Your task to perform on an android device: show emergency info Image 0: 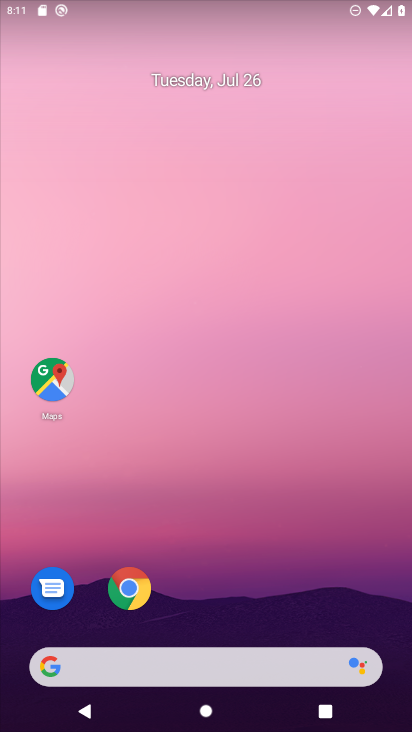
Step 0: drag from (144, 639) to (206, 386)
Your task to perform on an android device: show emergency info Image 1: 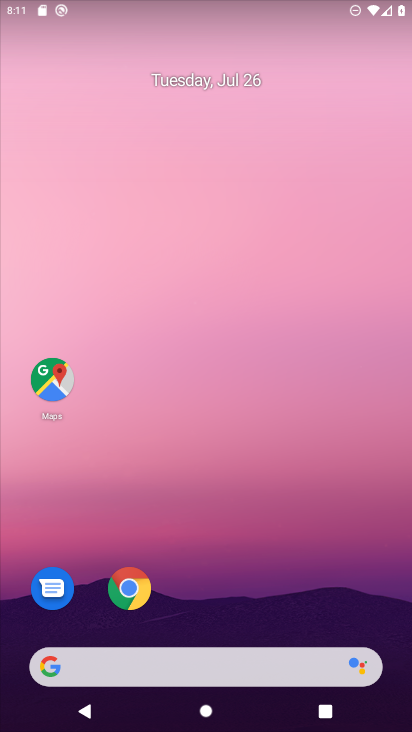
Step 1: drag from (215, 590) to (317, 65)
Your task to perform on an android device: show emergency info Image 2: 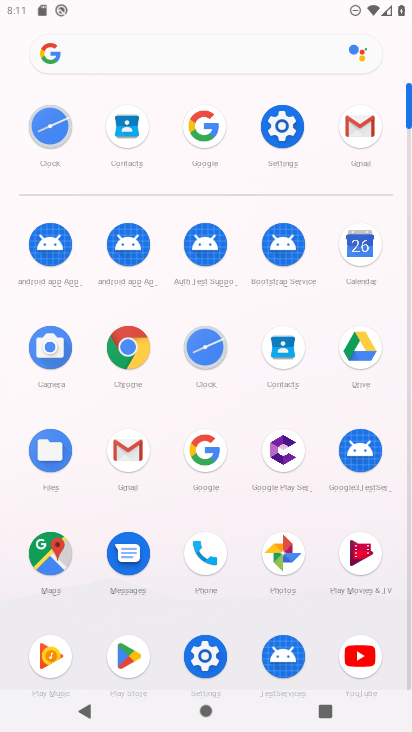
Step 2: click (190, 648)
Your task to perform on an android device: show emergency info Image 3: 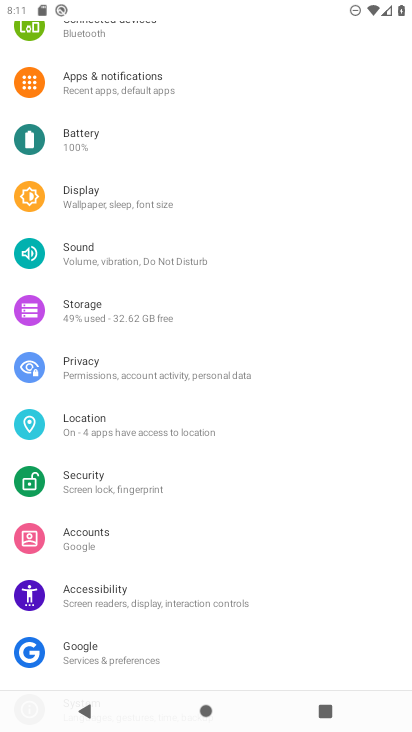
Step 3: drag from (208, 693) to (234, 571)
Your task to perform on an android device: show emergency info Image 4: 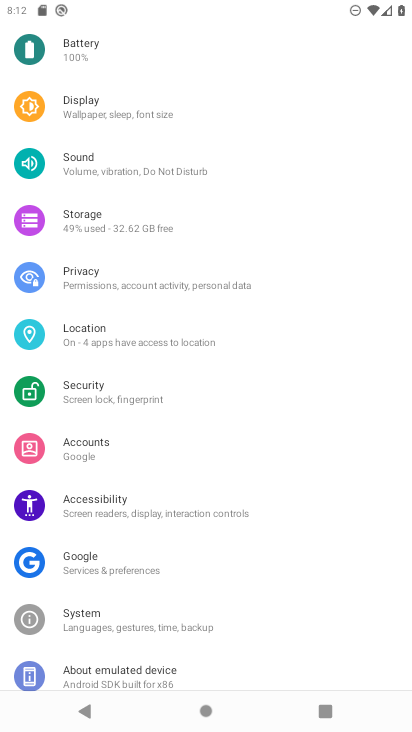
Step 4: click (115, 674)
Your task to perform on an android device: show emergency info Image 5: 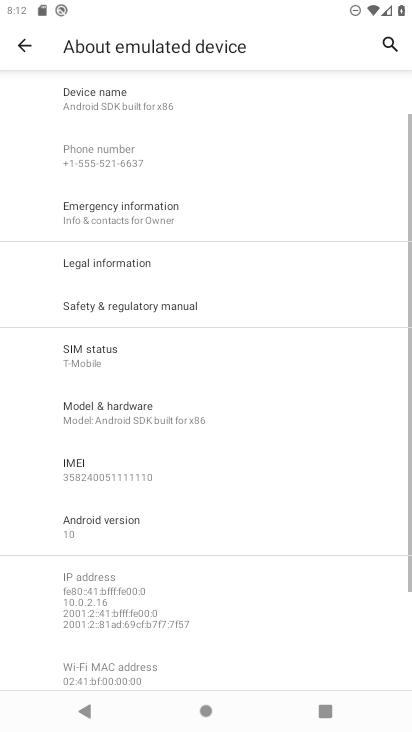
Step 5: click (117, 217)
Your task to perform on an android device: show emergency info Image 6: 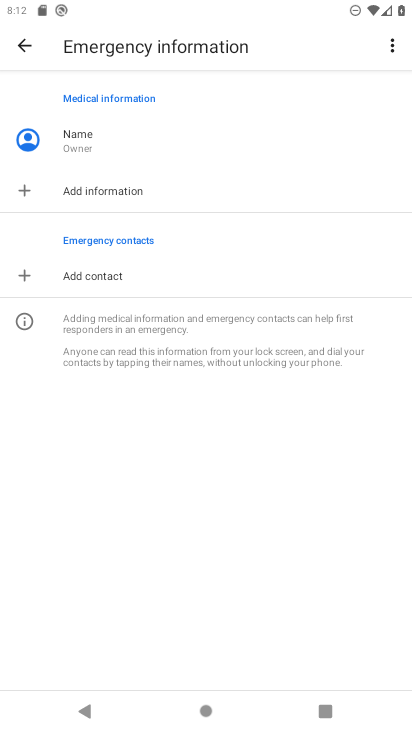
Step 6: task complete